Your task to perform on an android device: turn off smart reply in the gmail app Image 0: 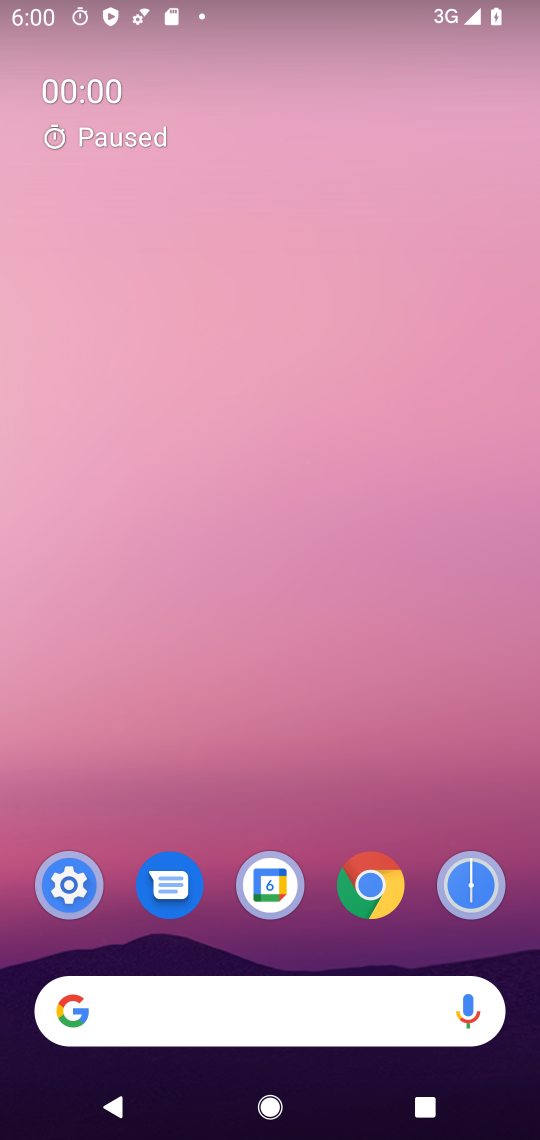
Step 0: drag from (483, 925) to (167, 60)
Your task to perform on an android device: turn off smart reply in the gmail app Image 1: 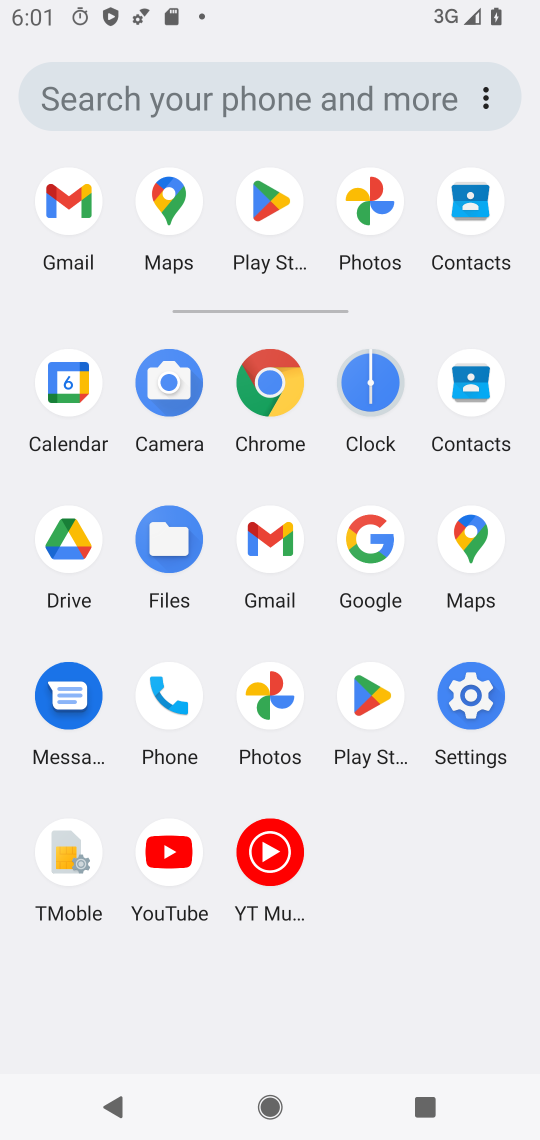
Step 1: click (283, 559)
Your task to perform on an android device: turn off smart reply in the gmail app Image 2: 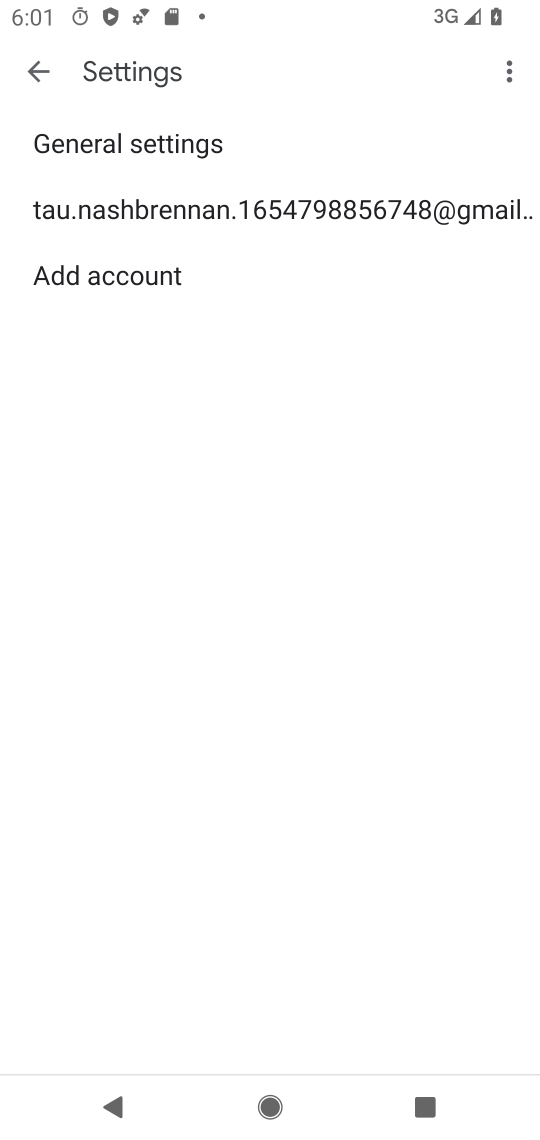
Step 2: click (156, 206)
Your task to perform on an android device: turn off smart reply in the gmail app Image 3: 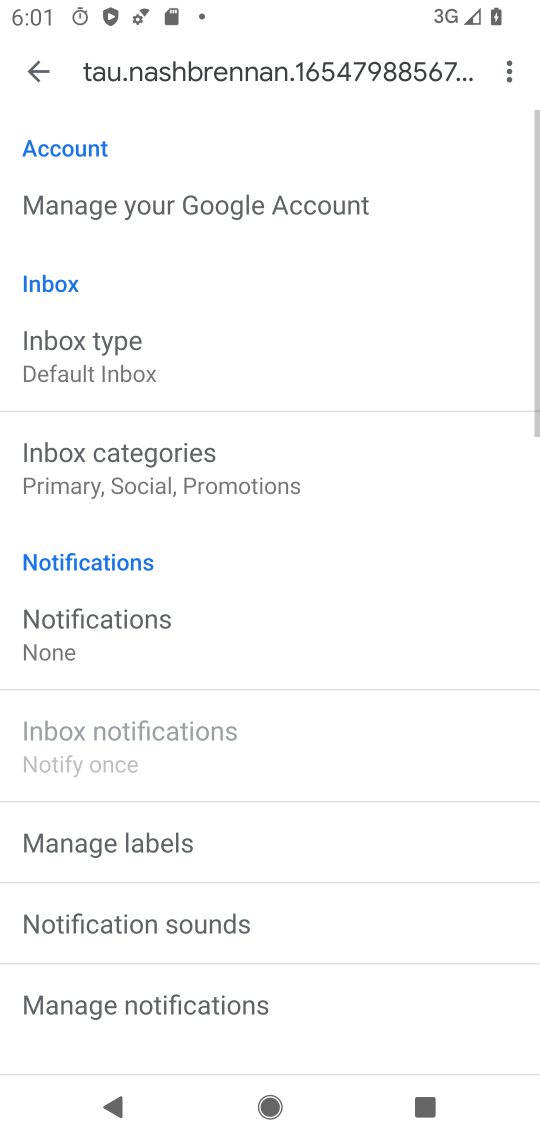
Step 3: drag from (233, 851) to (313, 164)
Your task to perform on an android device: turn off smart reply in the gmail app Image 4: 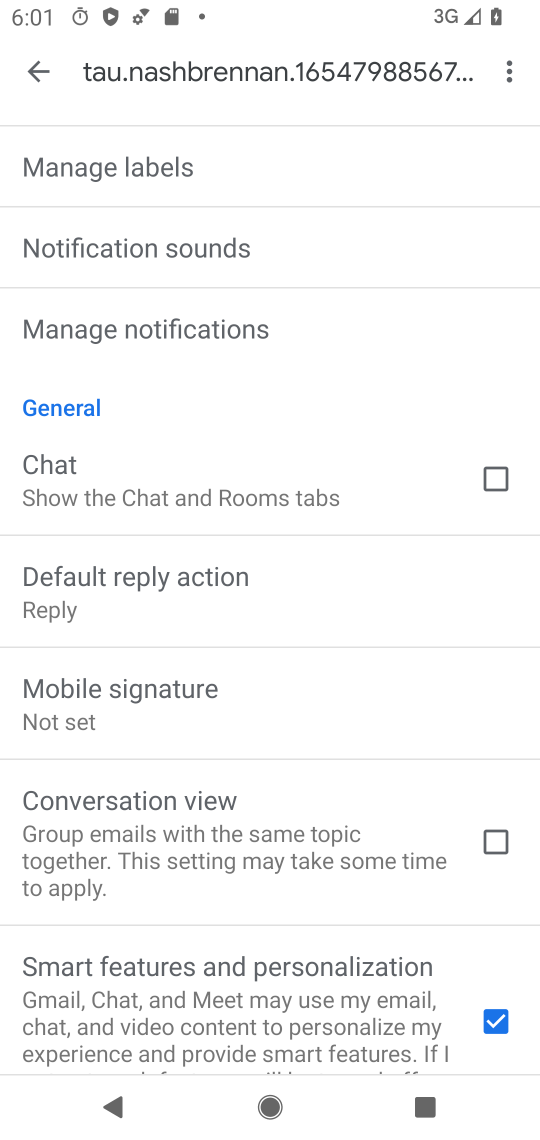
Step 4: drag from (245, 1004) to (267, 259)
Your task to perform on an android device: turn off smart reply in the gmail app Image 5: 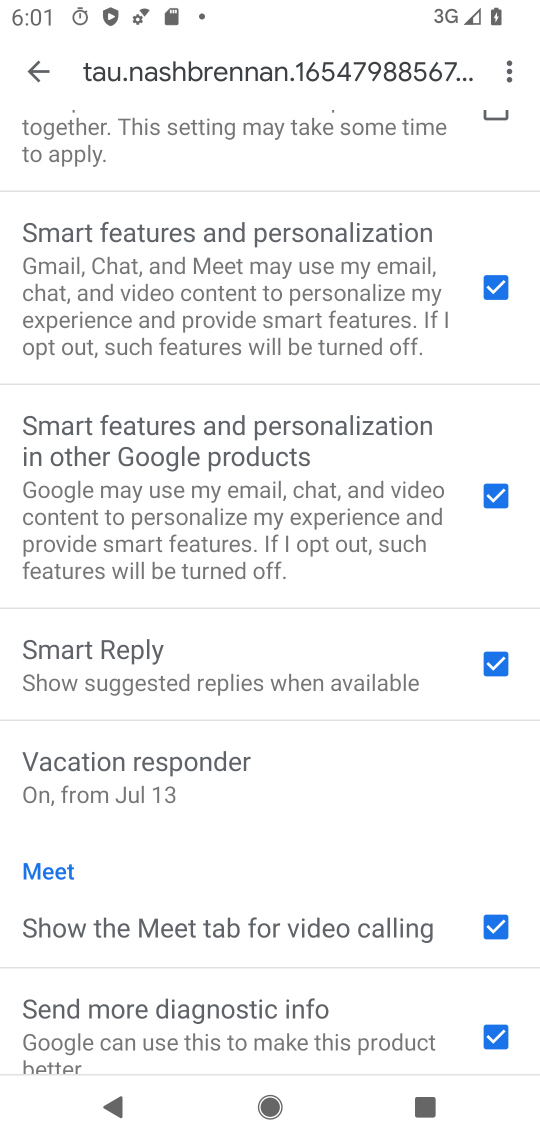
Step 5: click (328, 663)
Your task to perform on an android device: turn off smart reply in the gmail app Image 6: 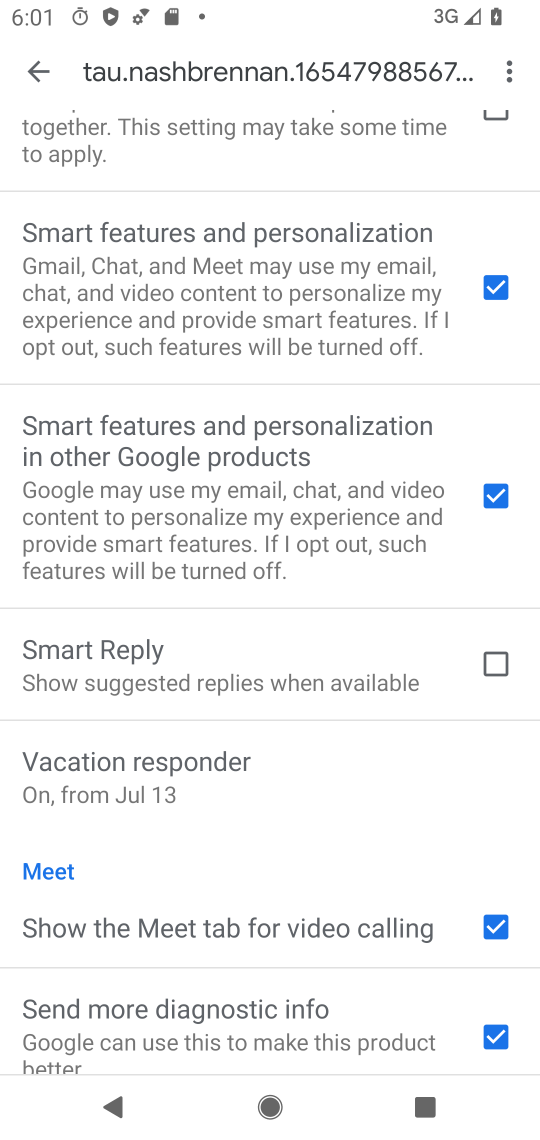
Step 6: task complete